Your task to perform on an android device: Go to ESPN.com Image 0: 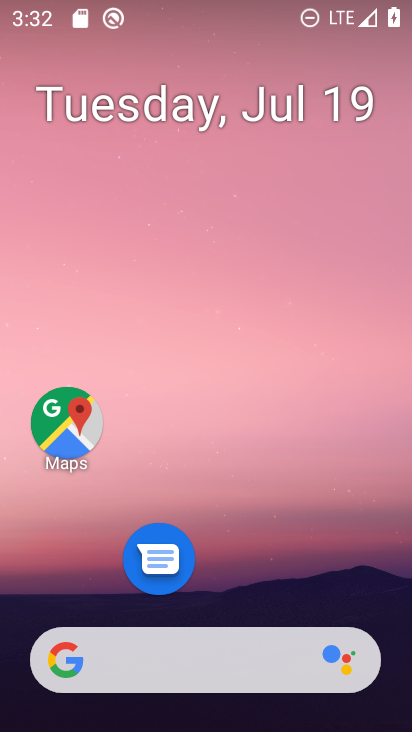
Step 0: drag from (246, 689) to (274, 228)
Your task to perform on an android device: Go to ESPN.com Image 1: 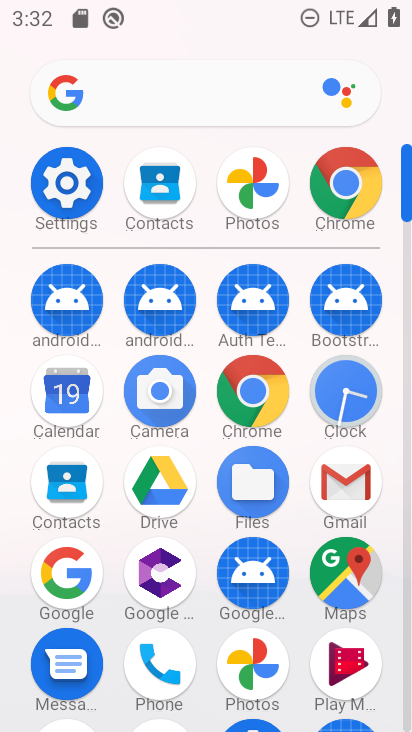
Step 1: click (355, 206)
Your task to perform on an android device: Go to ESPN.com Image 2: 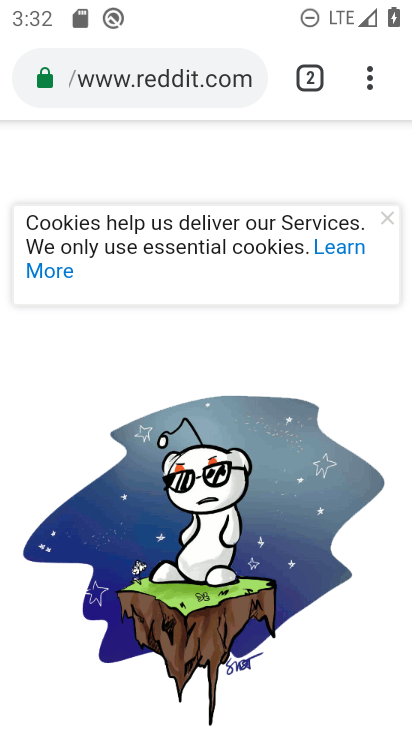
Step 2: click (150, 87)
Your task to perform on an android device: Go to ESPN.com Image 3: 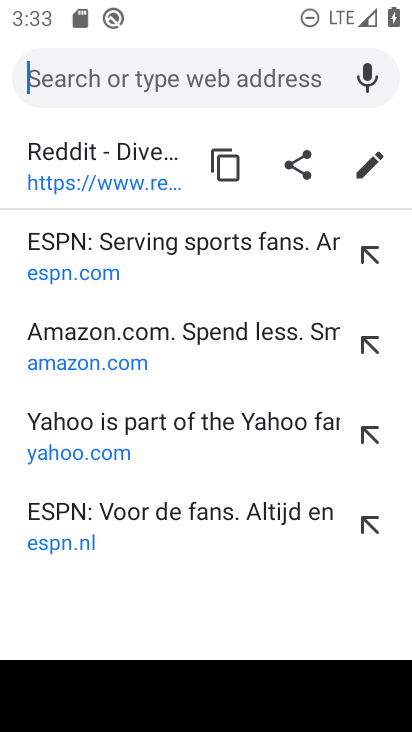
Step 3: click (109, 534)
Your task to perform on an android device: Go to ESPN.com Image 4: 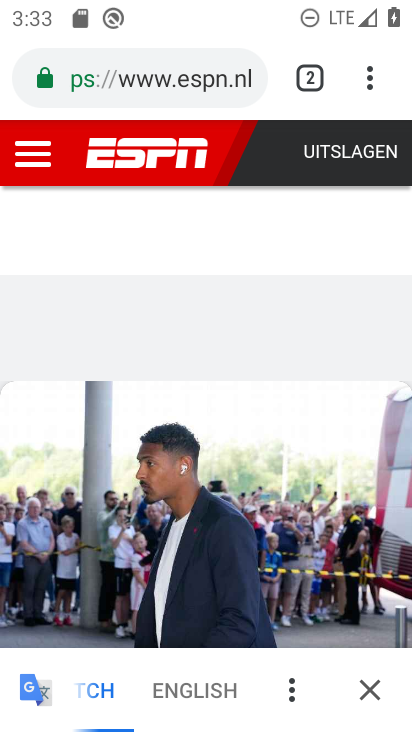
Step 4: task complete